Your task to perform on an android device: change text size in settings app Image 0: 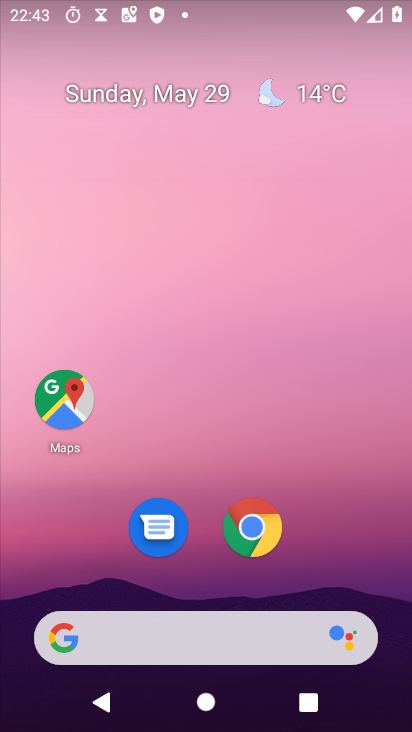
Step 0: press home button
Your task to perform on an android device: change text size in settings app Image 1: 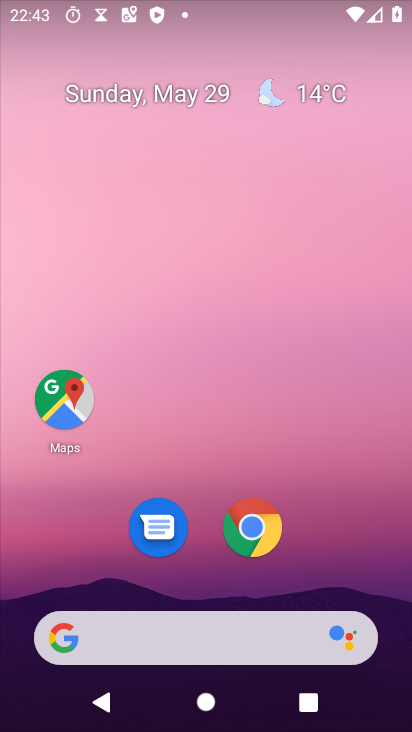
Step 1: drag from (170, 639) to (302, 137)
Your task to perform on an android device: change text size in settings app Image 2: 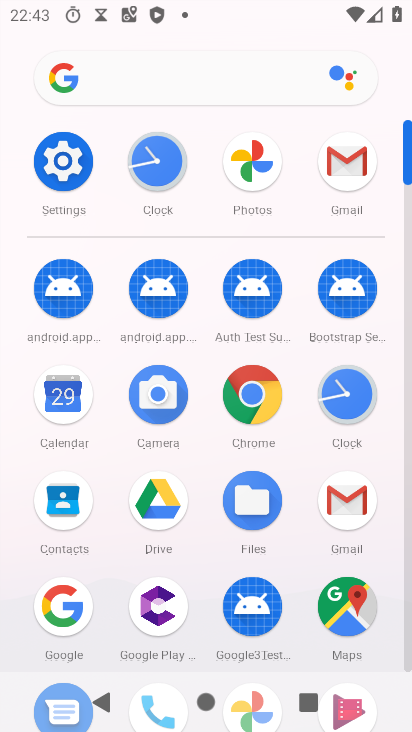
Step 2: click (56, 171)
Your task to perform on an android device: change text size in settings app Image 3: 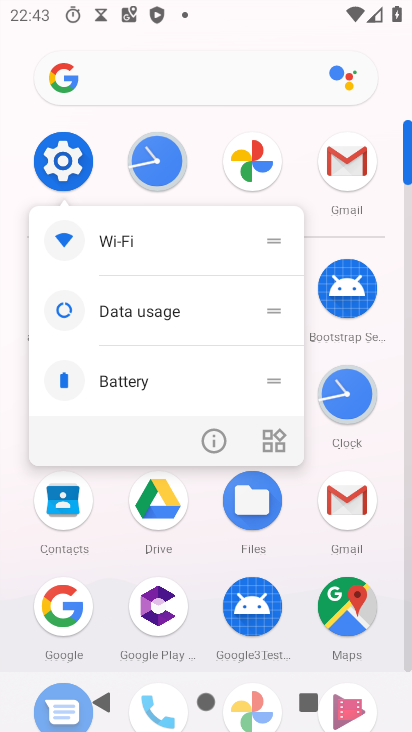
Step 3: click (67, 166)
Your task to perform on an android device: change text size in settings app Image 4: 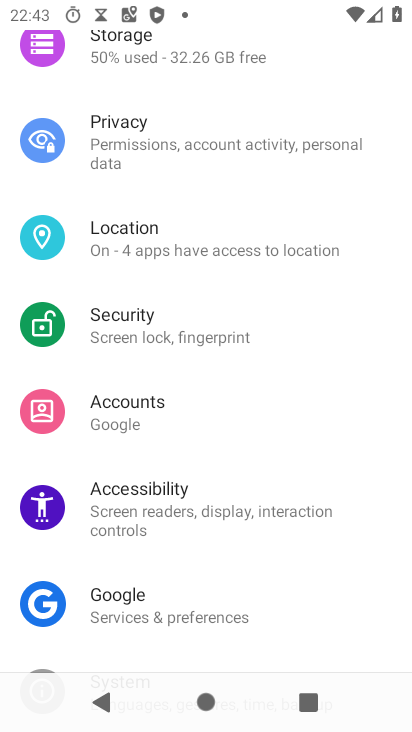
Step 4: drag from (270, 334) to (270, 650)
Your task to perform on an android device: change text size in settings app Image 5: 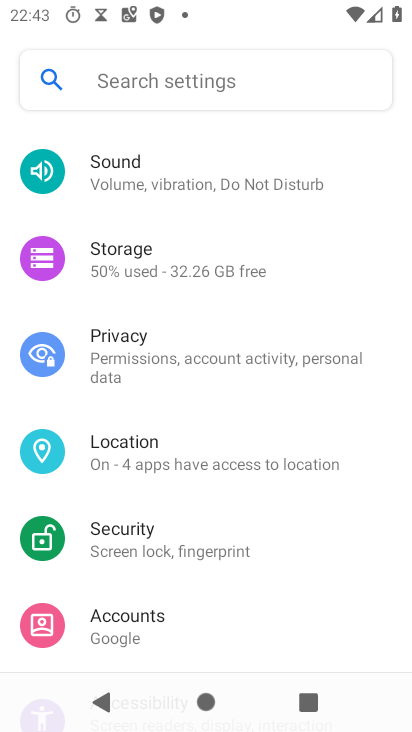
Step 5: drag from (320, 152) to (248, 590)
Your task to perform on an android device: change text size in settings app Image 6: 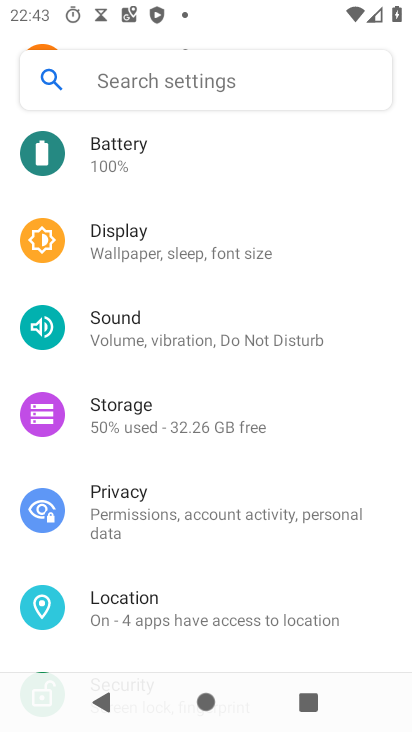
Step 6: click (235, 253)
Your task to perform on an android device: change text size in settings app Image 7: 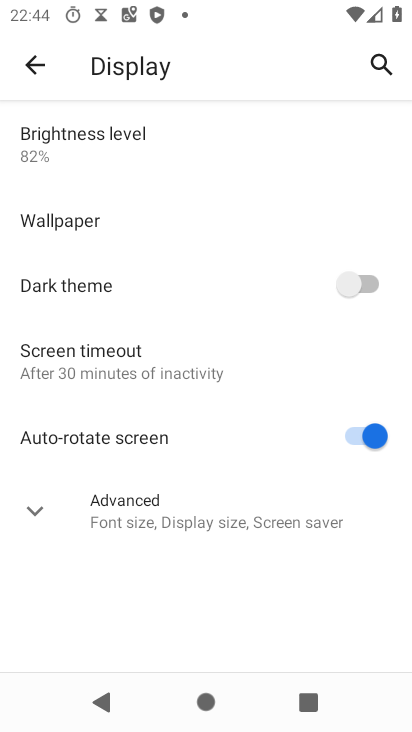
Step 7: click (174, 511)
Your task to perform on an android device: change text size in settings app Image 8: 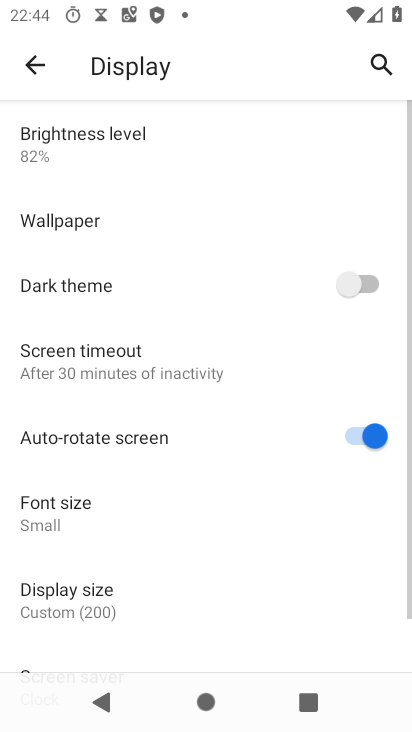
Step 8: click (48, 502)
Your task to perform on an android device: change text size in settings app Image 9: 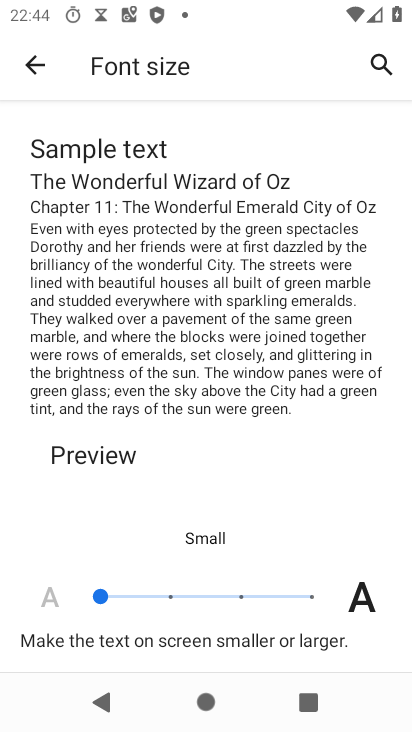
Step 9: click (173, 601)
Your task to perform on an android device: change text size in settings app Image 10: 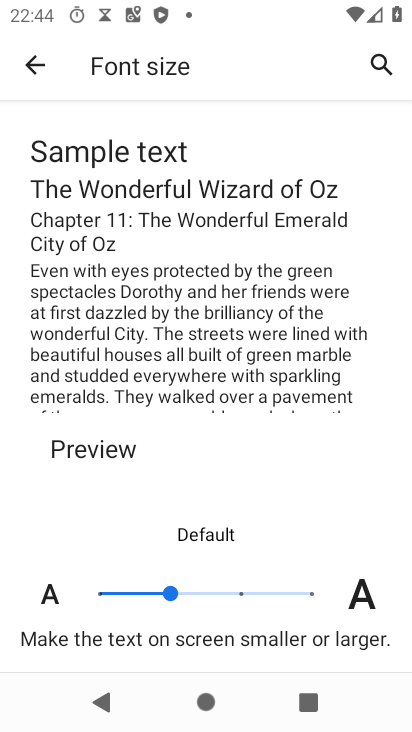
Step 10: task complete